Your task to perform on an android device: Do I have any events this weekend? Image 0: 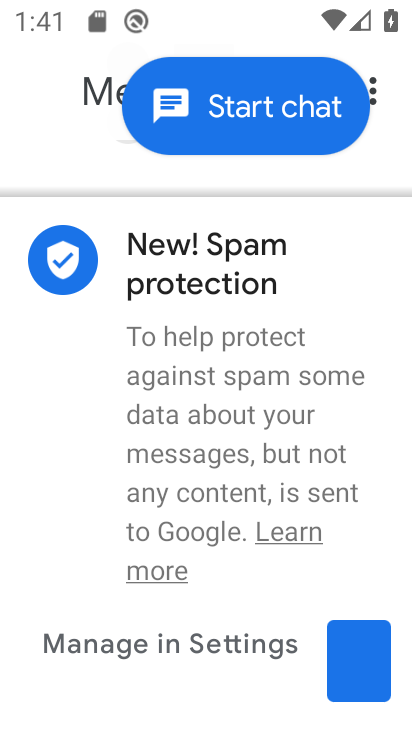
Step 0: press home button
Your task to perform on an android device: Do I have any events this weekend? Image 1: 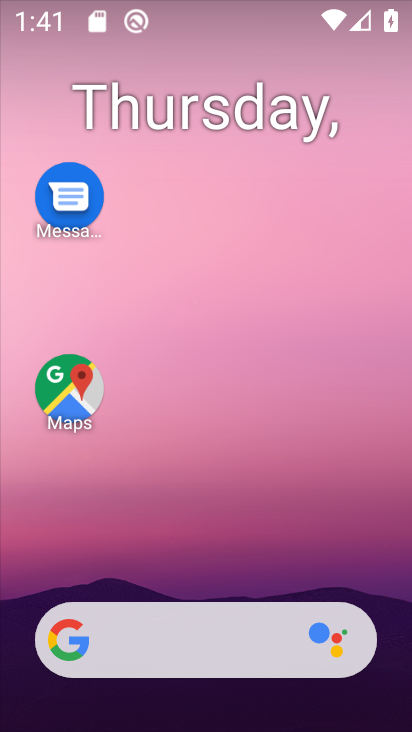
Step 1: drag from (160, 568) to (222, 157)
Your task to perform on an android device: Do I have any events this weekend? Image 2: 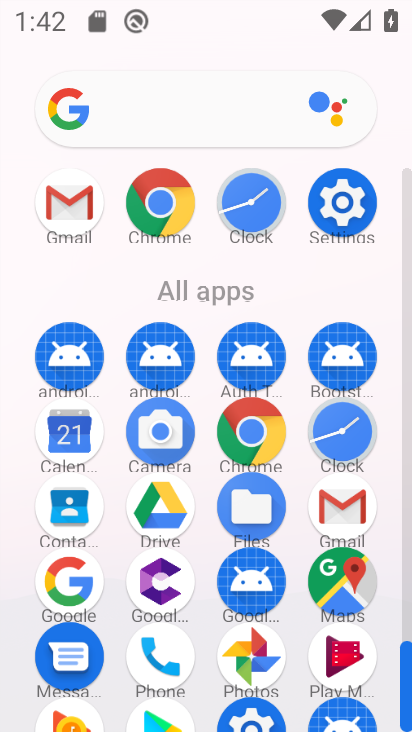
Step 2: click (58, 450)
Your task to perform on an android device: Do I have any events this weekend? Image 3: 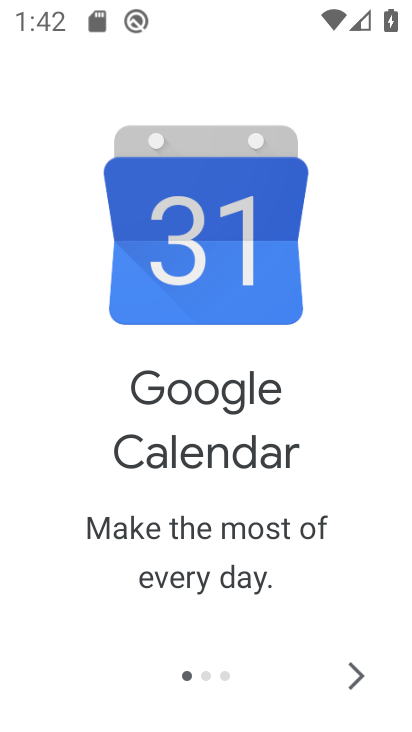
Step 3: click (351, 671)
Your task to perform on an android device: Do I have any events this weekend? Image 4: 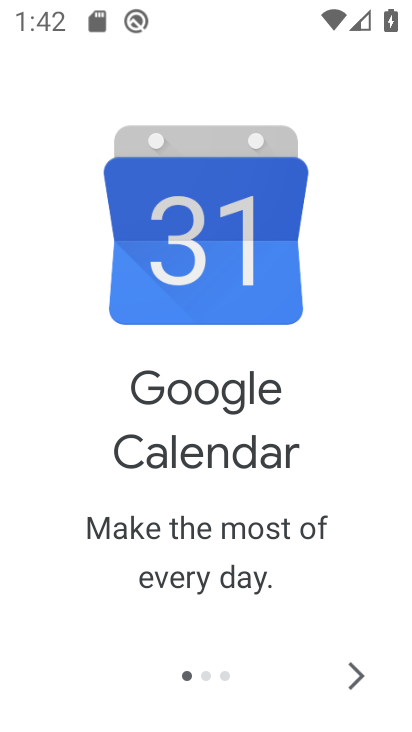
Step 4: click (351, 671)
Your task to perform on an android device: Do I have any events this weekend? Image 5: 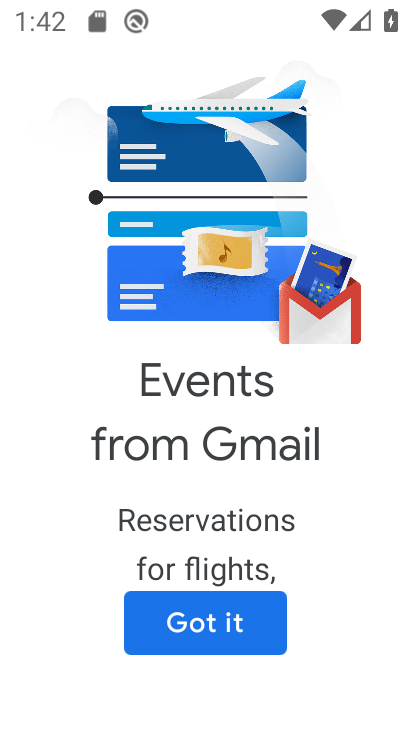
Step 5: click (365, 647)
Your task to perform on an android device: Do I have any events this weekend? Image 6: 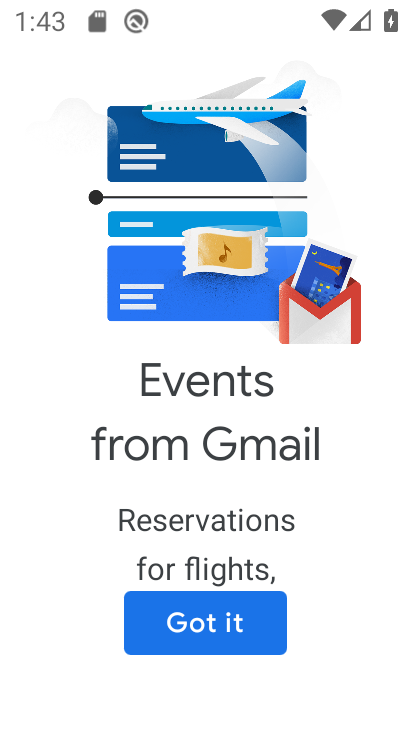
Step 6: click (240, 627)
Your task to perform on an android device: Do I have any events this weekend? Image 7: 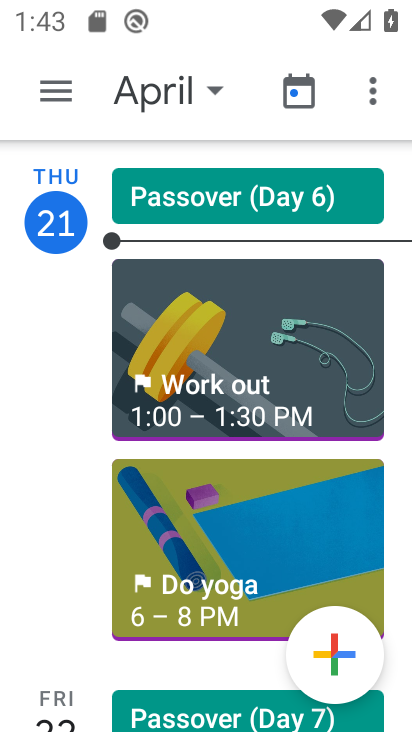
Step 7: click (175, 94)
Your task to perform on an android device: Do I have any events this weekend? Image 8: 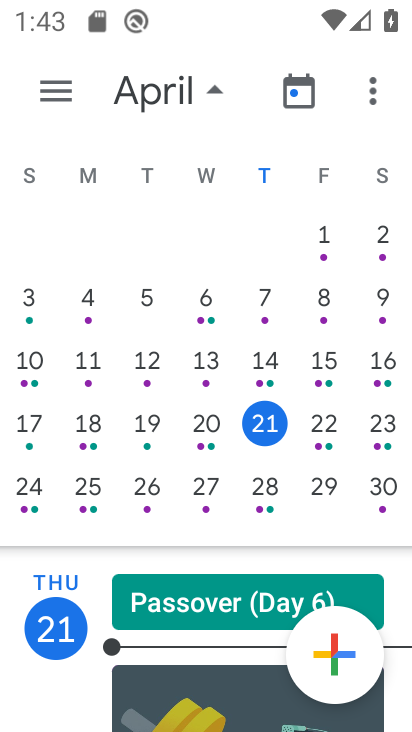
Step 8: click (374, 437)
Your task to perform on an android device: Do I have any events this weekend? Image 9: 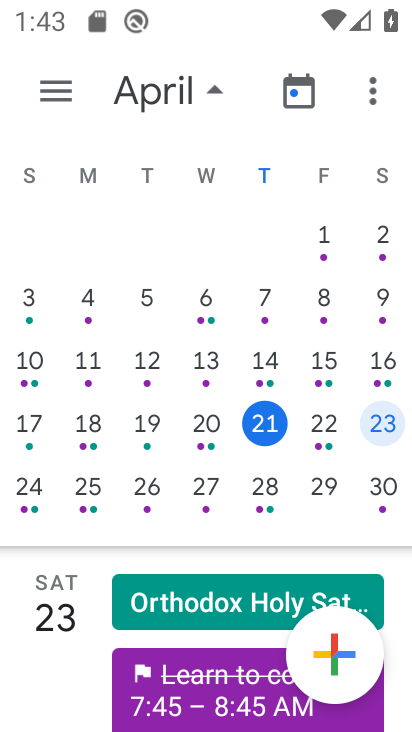
Step 9: click (31, 508)
Your task to perform on an android device: Do I have any events this weekend? Image 10: 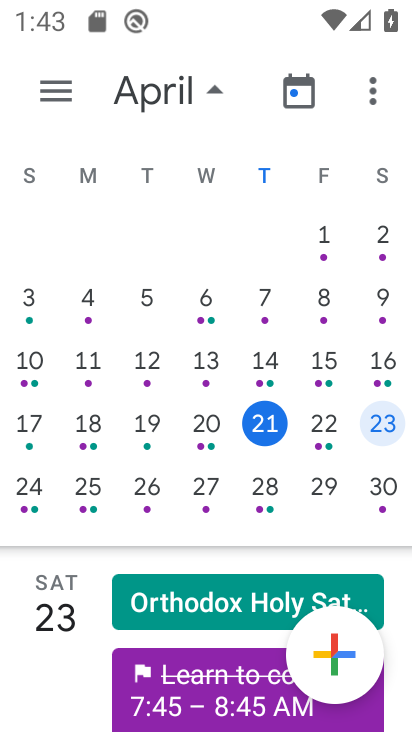
Step 10: task complete